Your task to perform on an android device: Toggle the flashlight Image 0: 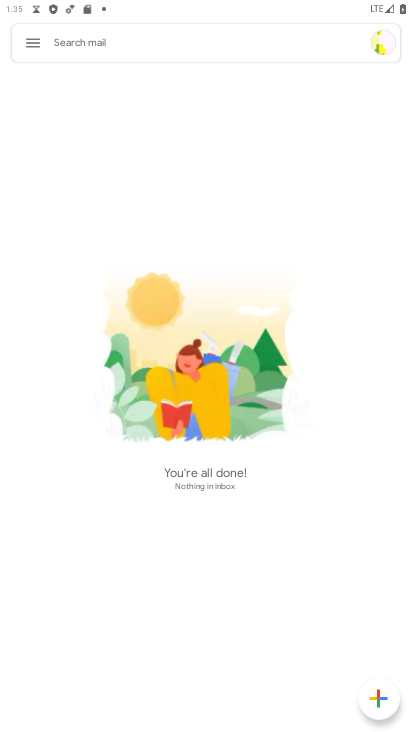
Step 0: press home button
Your task to perform on an android device: Toggle the flashlight Image 1: 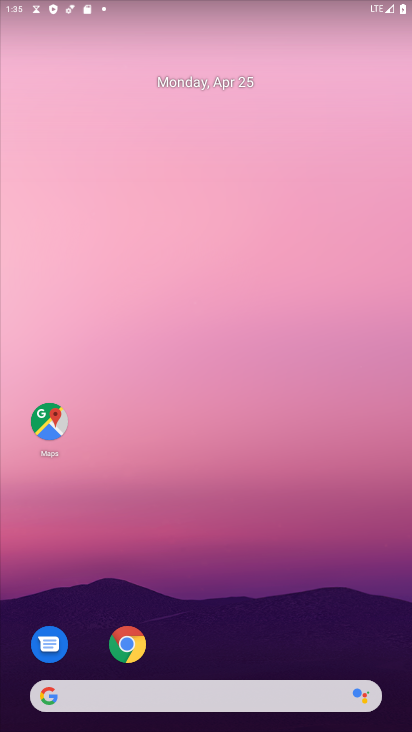
Step 1: task complete